Your task to perform on an android device: Go to settings Image 0: 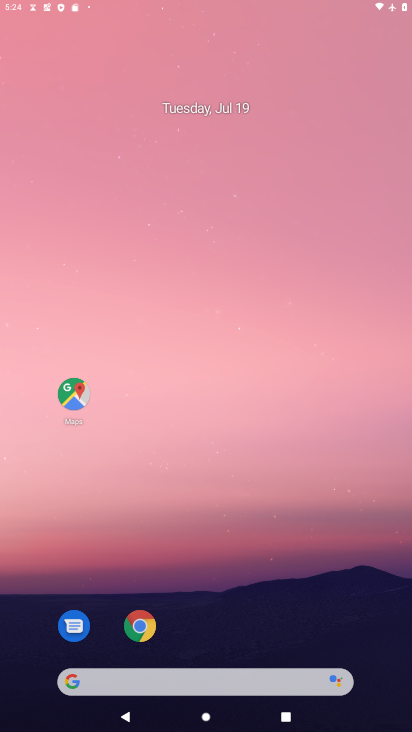
Step 0: press home button
Your task to perform on an android device: Go to settings Image 1: 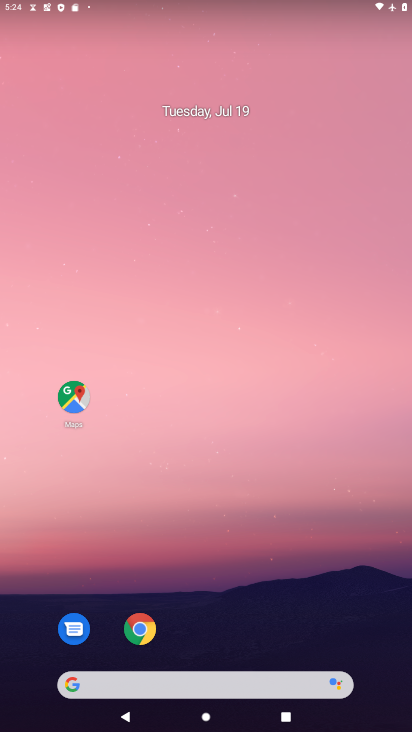
Step 1: drag from (248, 640) to (258, 52)
Your task to perform on an android device: Go to settings Image 2: 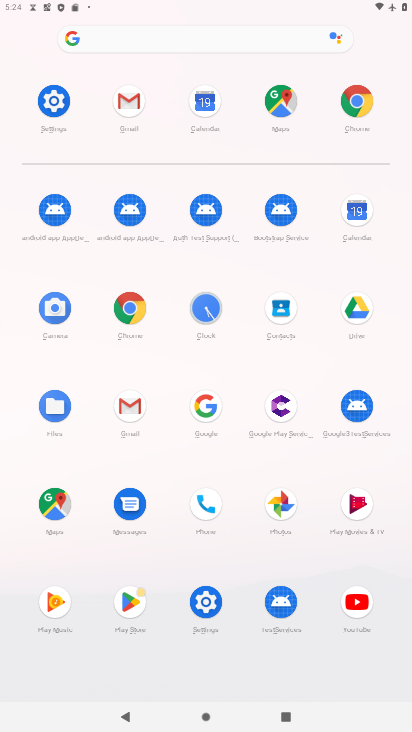
Step 2: click (52, 101)
Your task to perform on an android device: Go to settings Image 3: 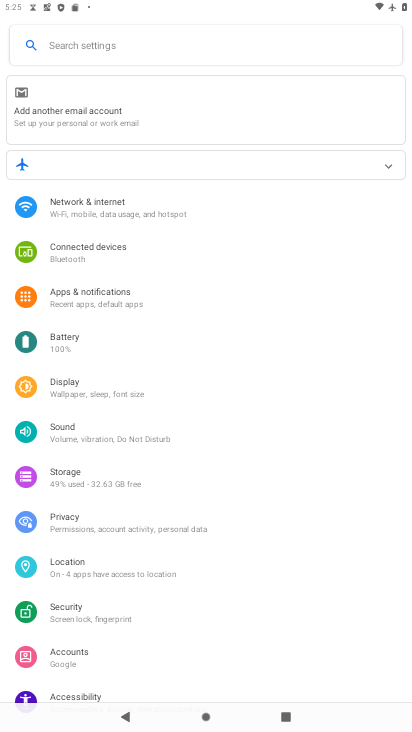
Step 3: task complete